Your task to perform on an android device: Go to sound settings Image 0: 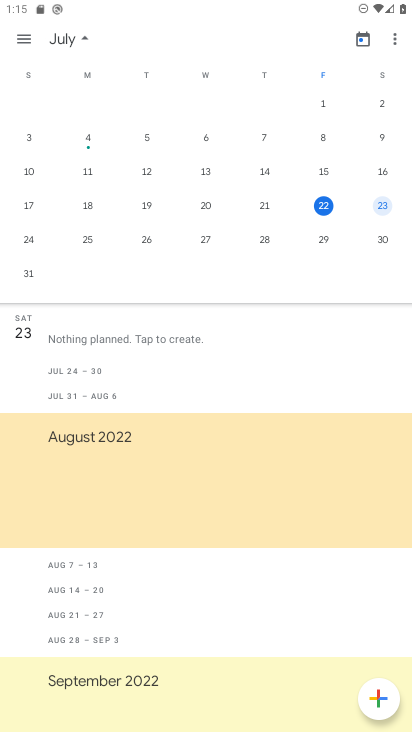
Step 0: press home button
Your task to perform on an android device: Go to sound settings Image 1: 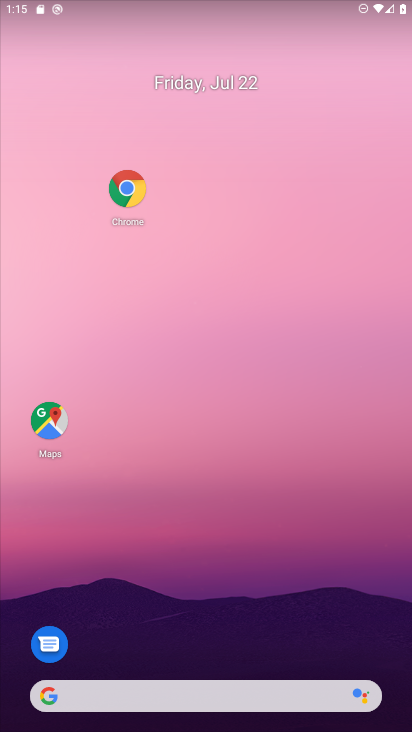
Step 1: drag from (214, 610) to (211, 217)
Your task to perform on an android device: Go to sound settings Image 2: 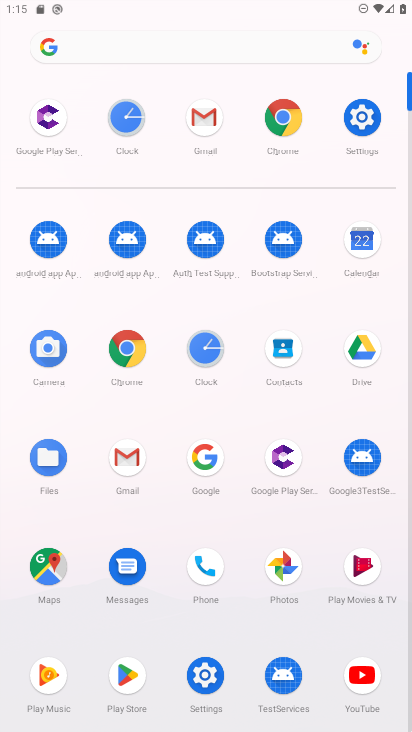
Step 2: click (382, 123)
Your task to perform on an android device: Go to sound settings Image 3: 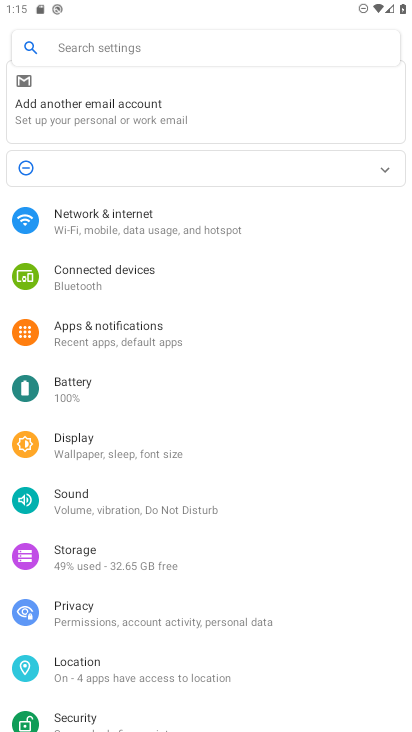
Step 3: click (201, 498)
Your task to perform on an android device: Go to sound settings Image 4: 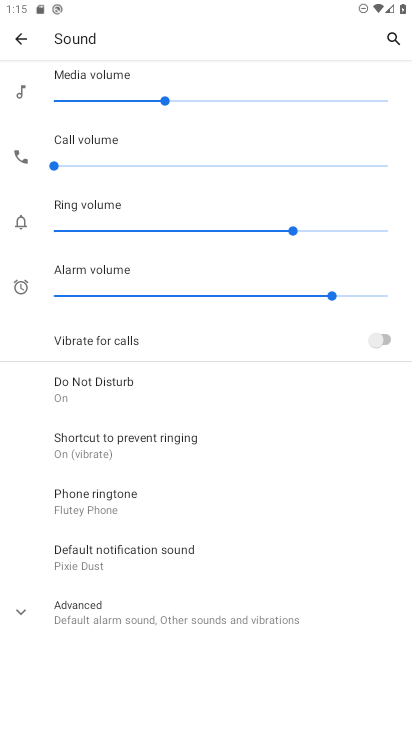
Step 4: task complete